Your task to perform on an android device: find photos in the google photos app Image 0: 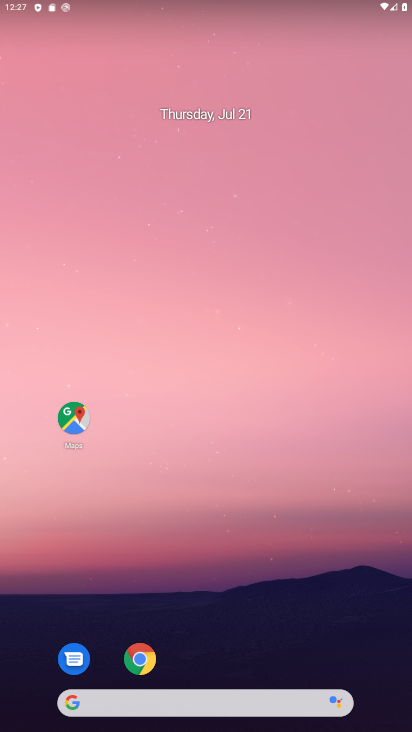
Step 0: drag from (214, 703) to (259, 89)
Your task to perform on an android device: find photos in the google photos app Image 1: 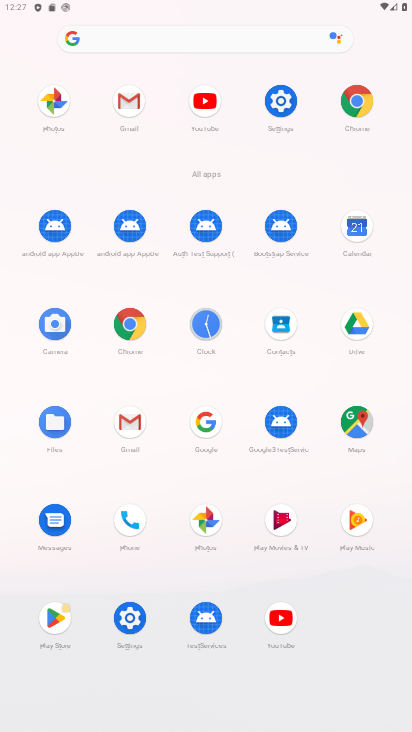
Step 1: click (55, 99)
Your task to perform on an android device: find photos in the google photos app Image 2: 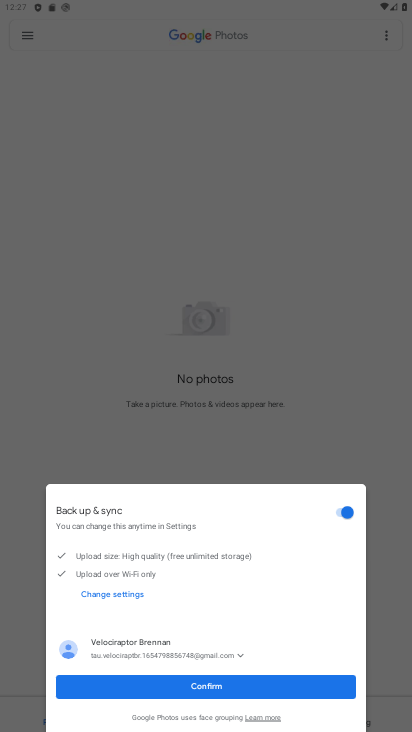
Step 2: click (208, 685)
Your task to perform on an android device: find photos in the google photos app Image 3: 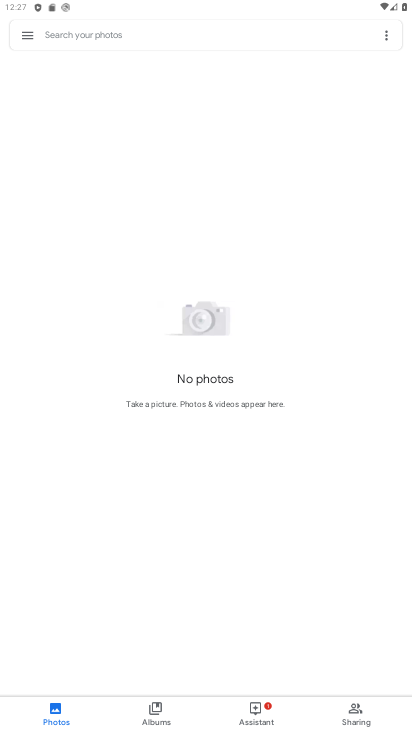
Step 3: click (157, 716)
Your task to perform on an android device: find photos in the google photos app Image 4: 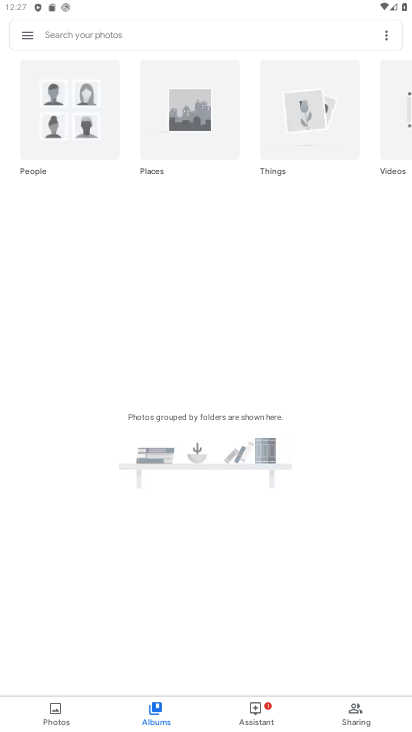
Step 4: click (80, 136)
Your task to perform on an android device: find photos in the google photos app Image 5: 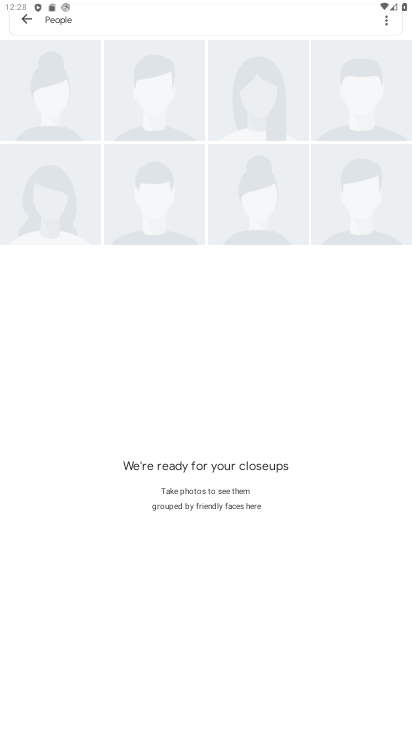
Step 5: press back button
Your task to perform on an android device: find photos in the google photos app Image 6: 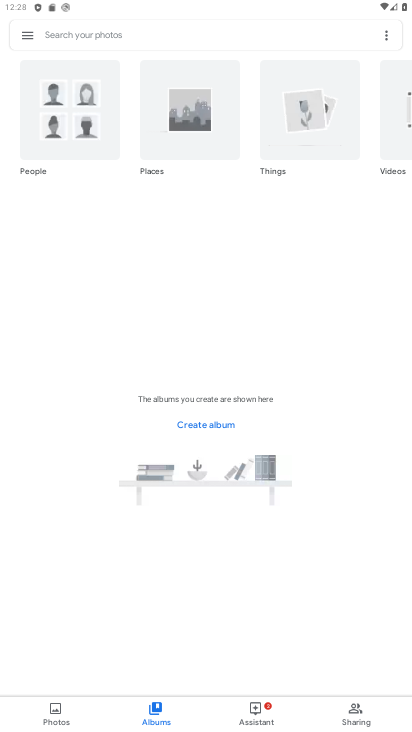
Step 6: click (202, 117)
Your task to perform on an android device: find photos in the google photos app Image 7: 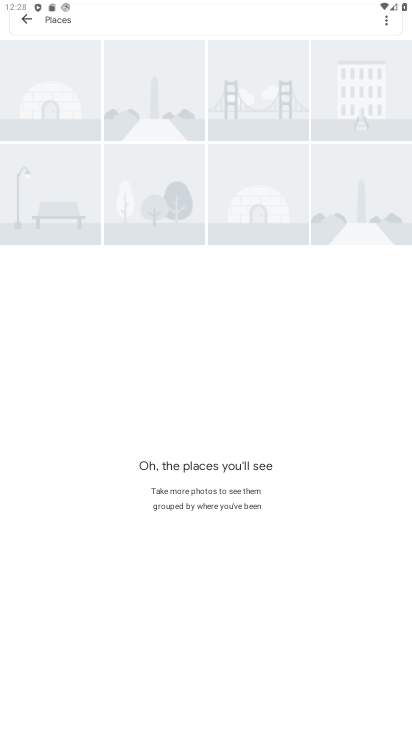
Step 7: press back button
Your task to perform on an android device: find photos in the google photos app Image 8: 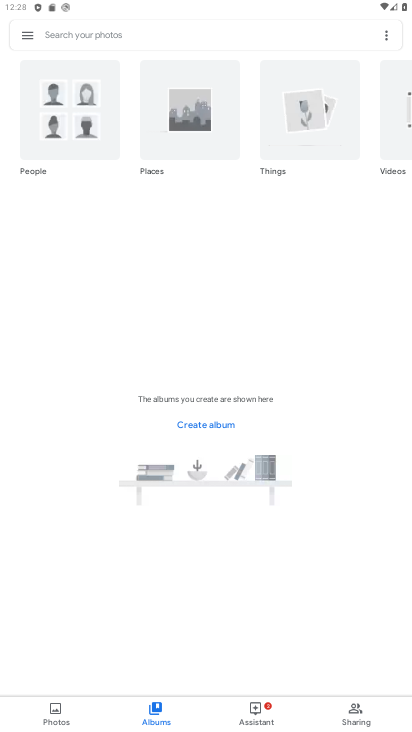
Step 8: click (320, 116)
Your task to perform on an android device: find photos in the google photos app Image 9: 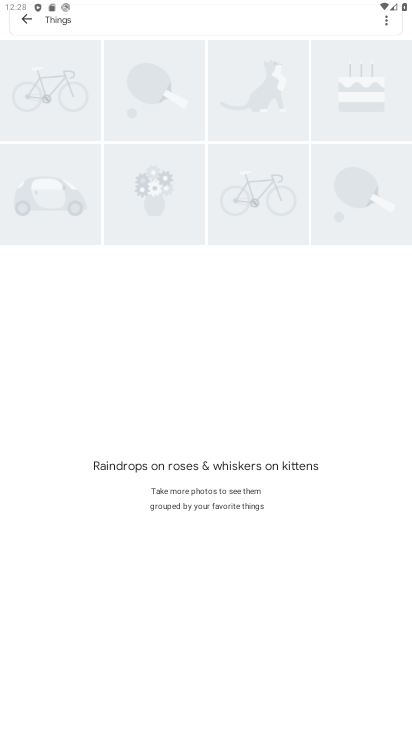
Step 9: task complete